Your task to perform on an android device: Open wifi settings Image 0: 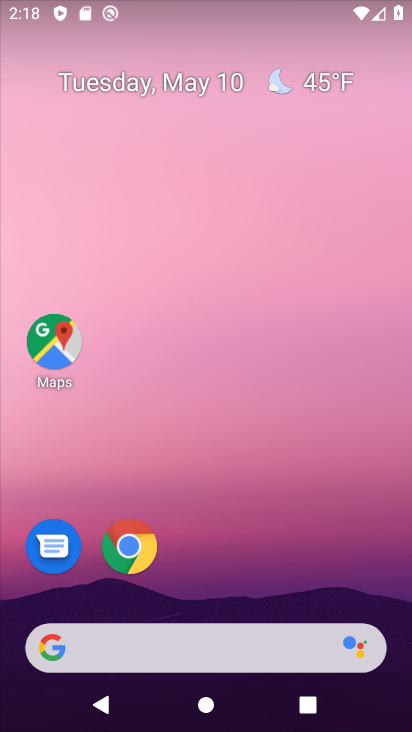
Step 0: drag from (218, 493) to (200, 19)
Your task to perform on an android device: Open wifi settings Image 1: 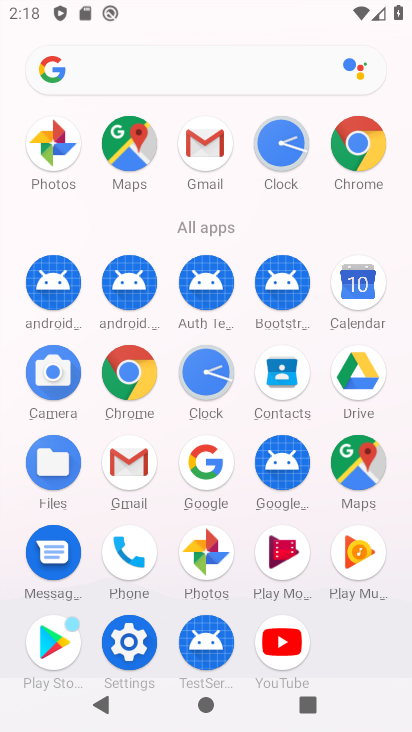
Step 1: click (129, 643)
Your task to perform on an android device: Open wifi settings Image 2: 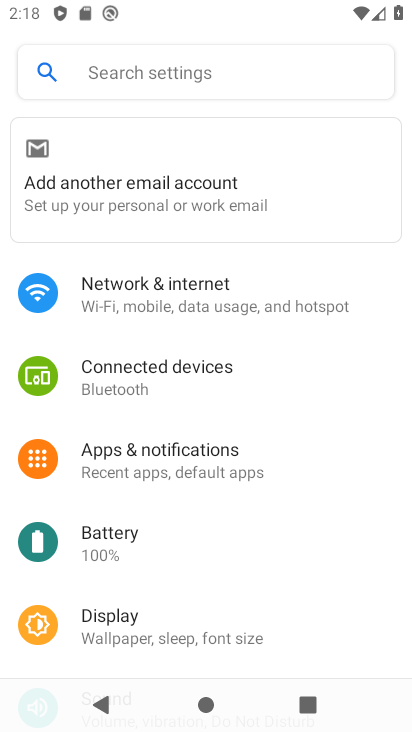
Step 2: click (201, 196)
Your task to perform on an android device: Open wifi settings Image 3: 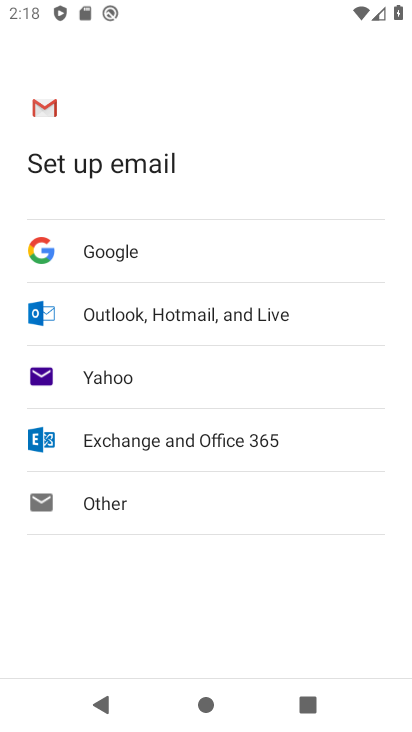
Step 3: press back button
Your task to perform on an android device: Open wifi settings Image 4: 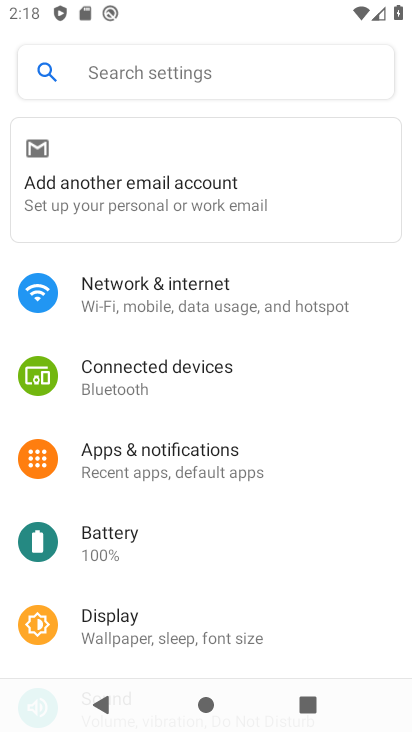
Step 4: click (217, 306)
Your task to perform on an android device: Open wifi settings Image 5: 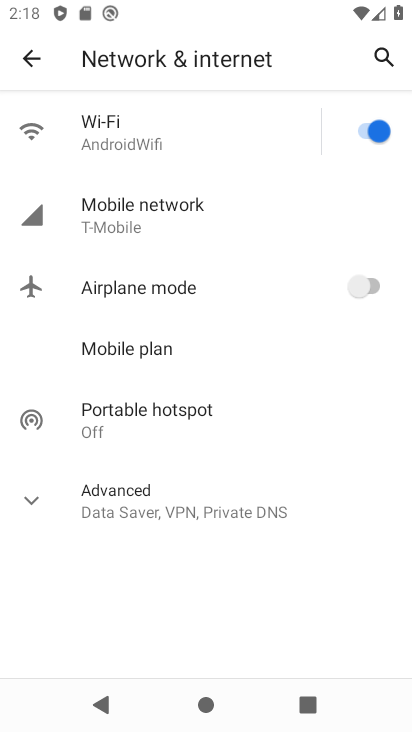
Step 5: click (174, 135)
Your task to perform on an android device: Open wifi settings Image 6: 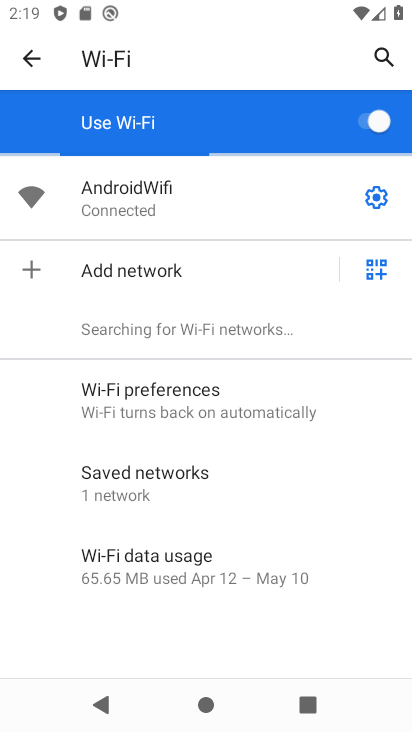
Step 6: task complete